Your task to perform on an android device: find which apps use the phone's location Image 0: 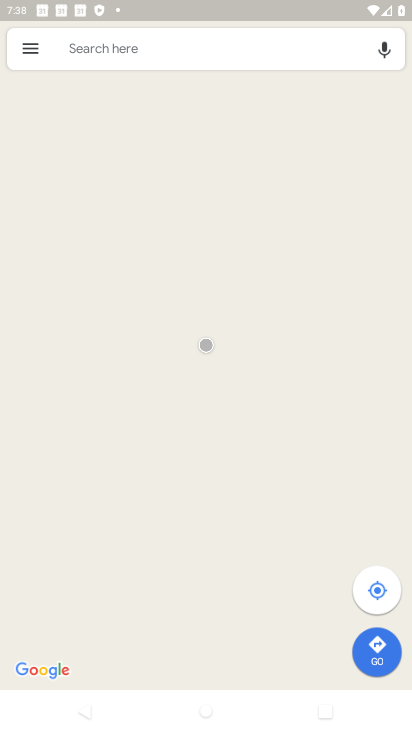
Step 0: press home button
Your task to perform on an android device: find which apps use the phone's location Image 1: 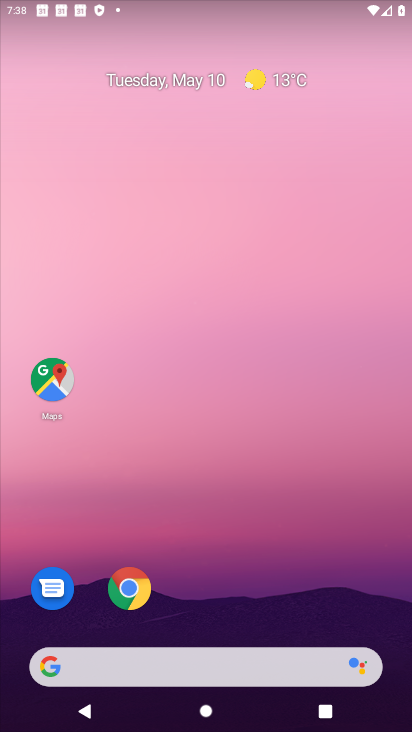
Step 1: drag from (233, 629) to (265, 88)
Your task to perform on an android device: find which apps use the phone's location Image 2: 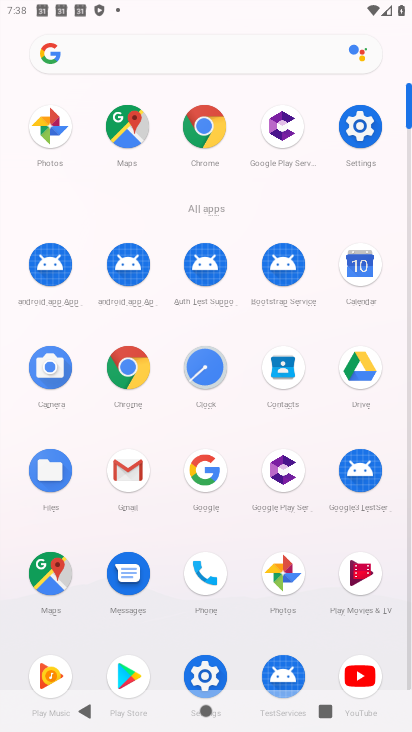
Step 2: click (377, 120)
Your task to perform on an android device: find which apps use the phone's location Image 3: 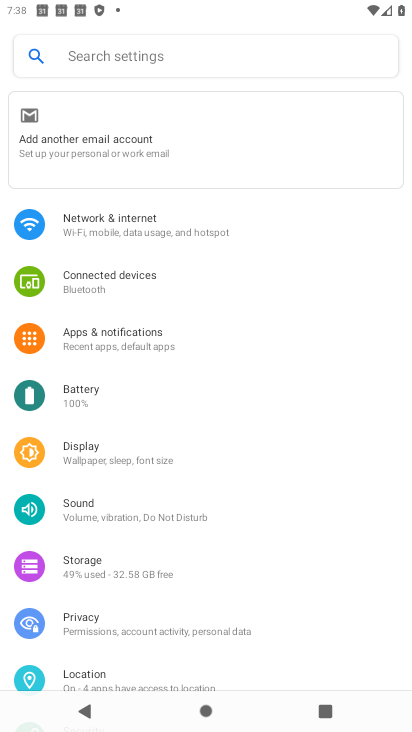
Step 3: click (77, 678)
Your task to perform on an android device: find which apps use the phone's location Image 4: 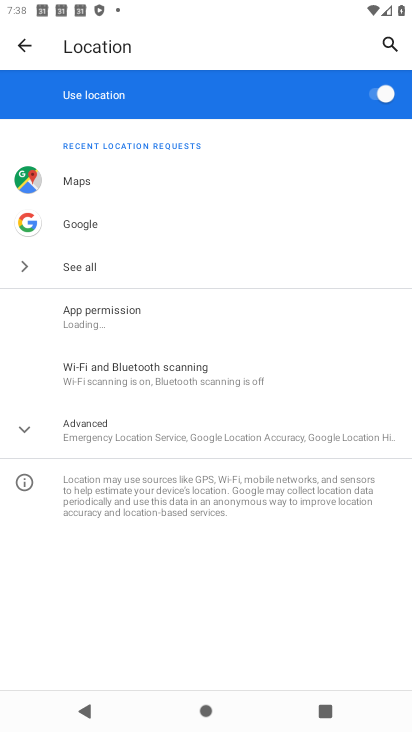
Step 4: click (117, 271)
Your task to perform on an android device: find which apps use the phone's location Image 5: 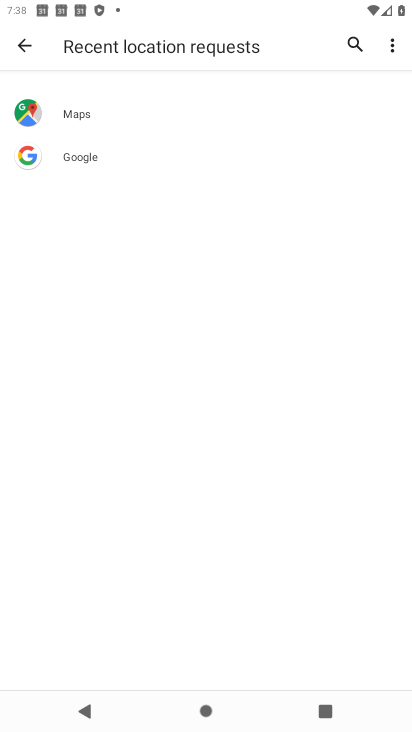
Step 5: task complete